Your task to perform on an android device: turn vacation reply on in the gmail app Image 0: 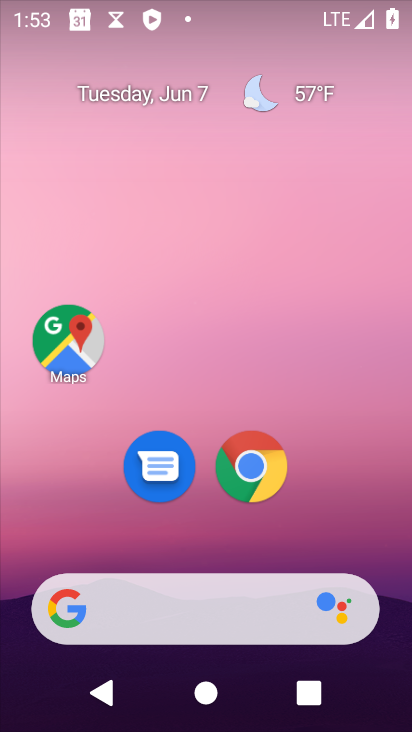
Step 0: drag from (171, 534) to (183, 86)
Your task to perform on an android device: turn vacation reply on in the gmail app Image 1: 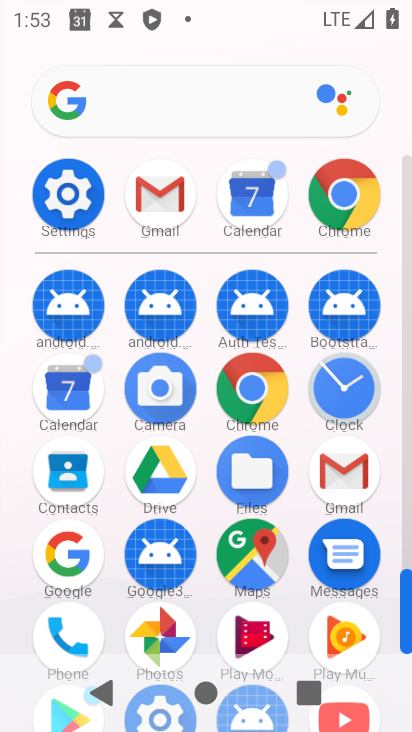
Step 1: click (174, 193)
Your task to perform on an android device: turn vacation reply on in the gmail app Image 2: 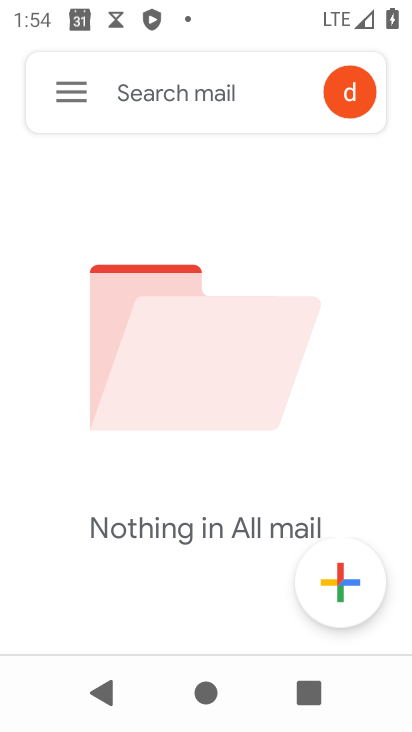
Step 2: click (76, 82)
Your task to perform on an android device: turn vacation reply on in the gmail app Image 3: 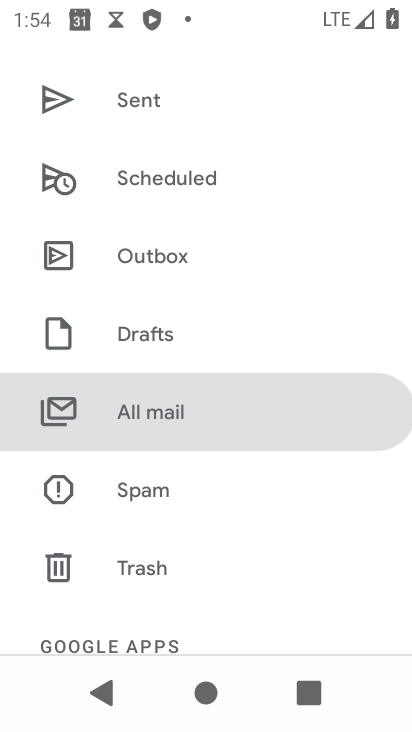
Step 3: drag from (205, 523) to (272, 51)
Your task to perform on an android device: turn vacation reply on in the gmail app Image 4: 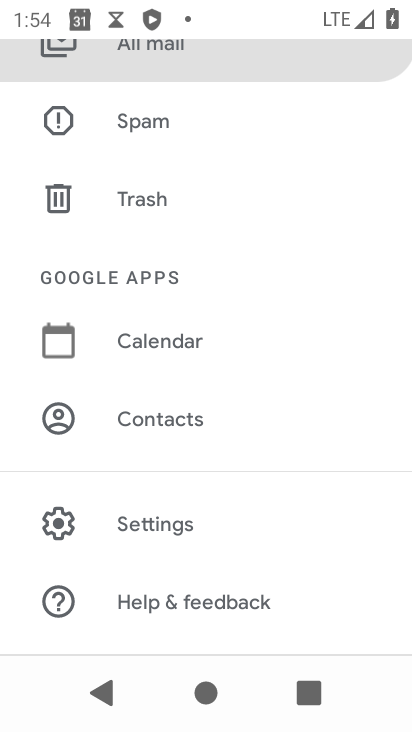
Step 4: click (152, 530)
Your task to perform on an android device: turn vacation reply on in the gmail app Image 5: 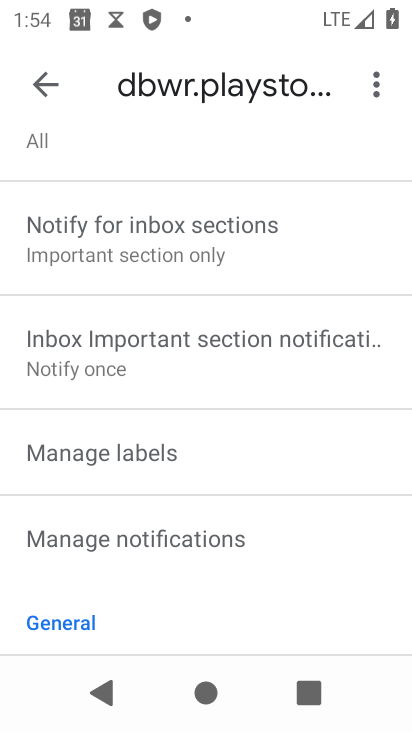
Step 5: drag from (144, 586) to (239, 52)
Your task to perform on an android device: turn vacation reply on in the gmail app Image 6: 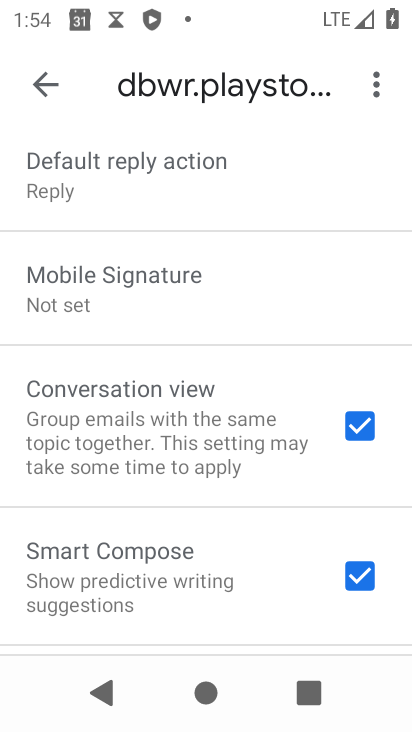
Step 6: drag from (162, 552) to (248, 10)
Your task to perform on an android device: turn vacation reply on in the gmail app Image 7: 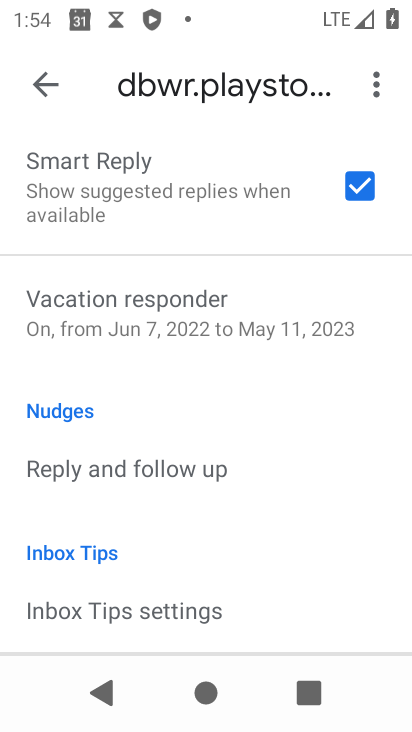
Step 7: click (137, 313)
Your task to perform on an android device: turn vacation reply on in the gmail app Image 8: 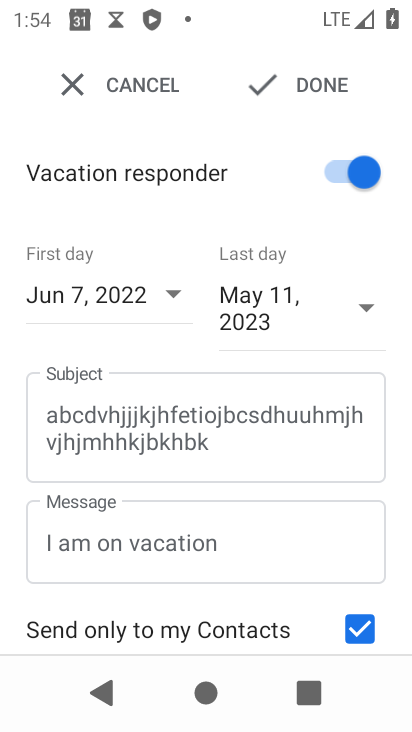
Step 8: task complete